Your task to perform on an android device: all mails in gmail Image 0: 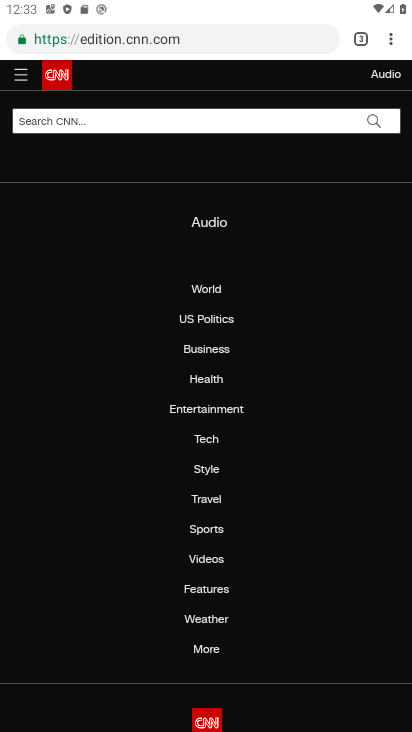
Step 0: press home button
Your task to perform on an android device: all mails in gmail Image 1: 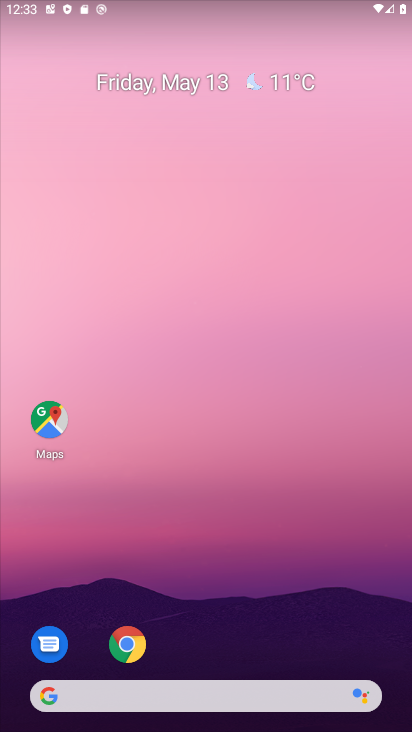
Step 1: drag from (215, 688) to (221, 122)
Your task to perform on an android device: all mails in gmail Image 2: 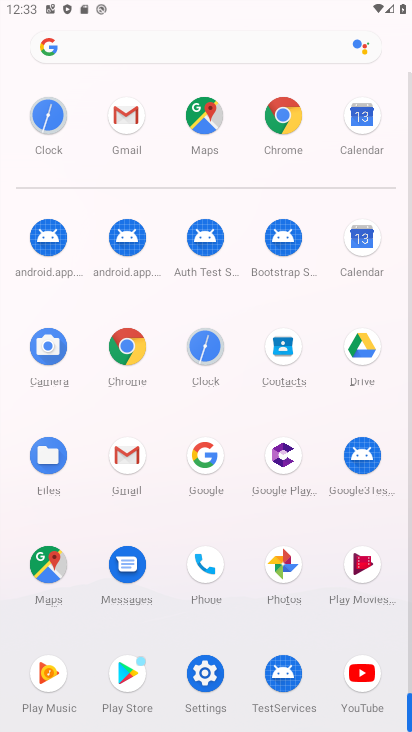
Step 2: click (126, 455)
Your task to perform on an android device: all mails in gmail Image 3: 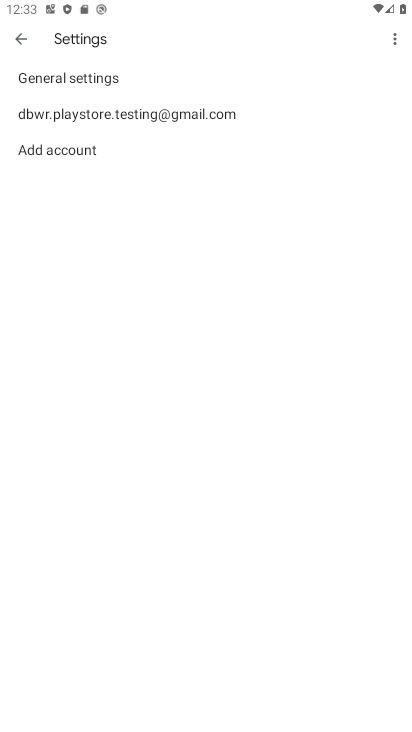
Step 3: click (21, 35)
Your task to perform on an android device: all mails in gmail Image 4: 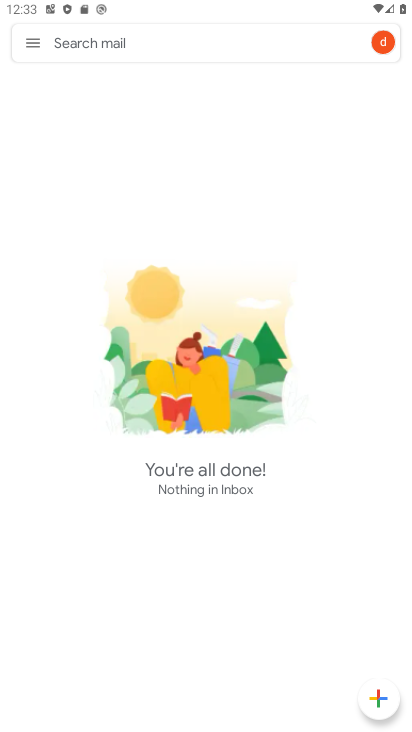
Step 4: click (29, 43)
Your task to perform on an android device: all mails in gmail Image 5: 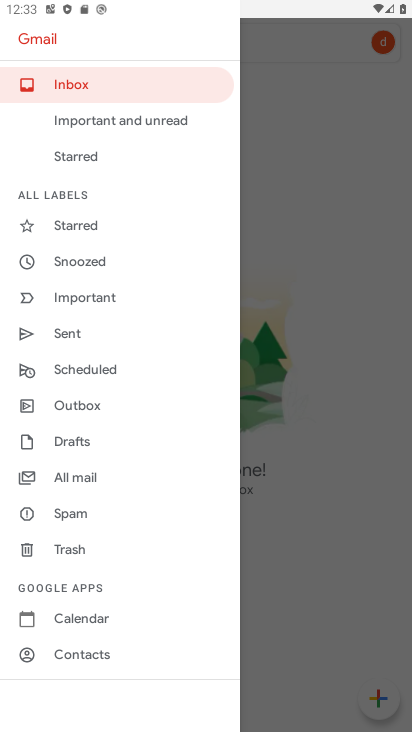
Step 5: click (81, 474)
Your task to perform on an android device: all mails in gmail Image 6: 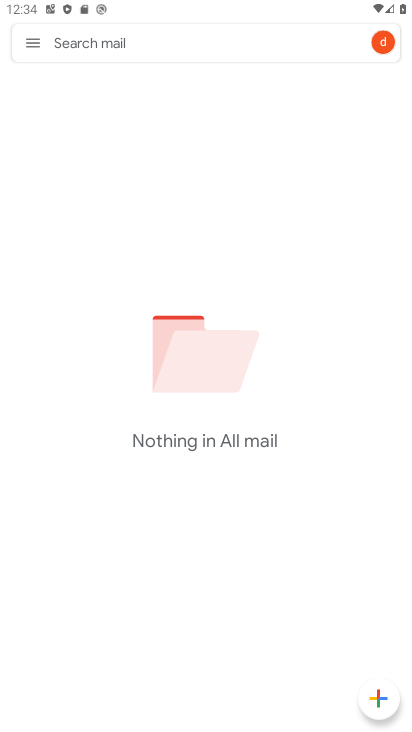
Step 6: task complete